Your task to perform on an android device: visit the assistant section in the google photos Image 0: 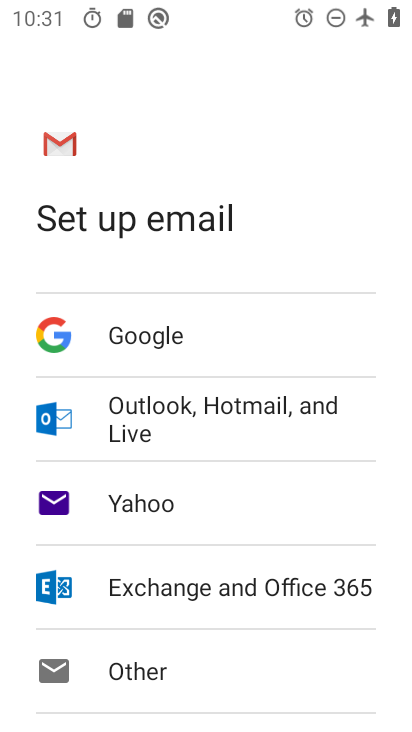
Step 0: press home button
Your task to perform on an android device: visit the assistant section in the google photos Image 1: 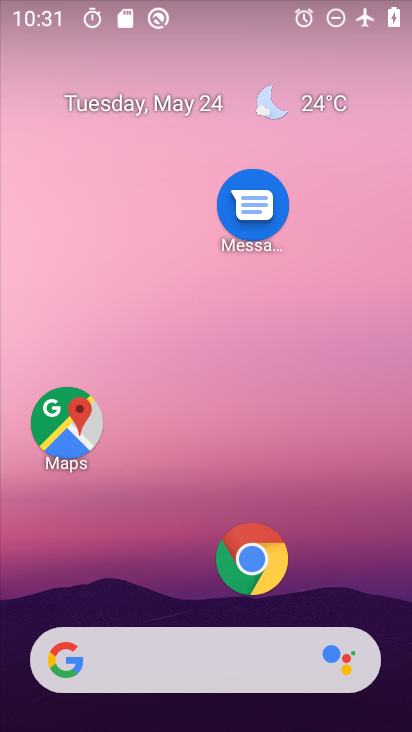
Step 1: drag from (190, 617) to (170, 204)
Your task to perform on an android device: visit the assistant section in the google photos Image 2: 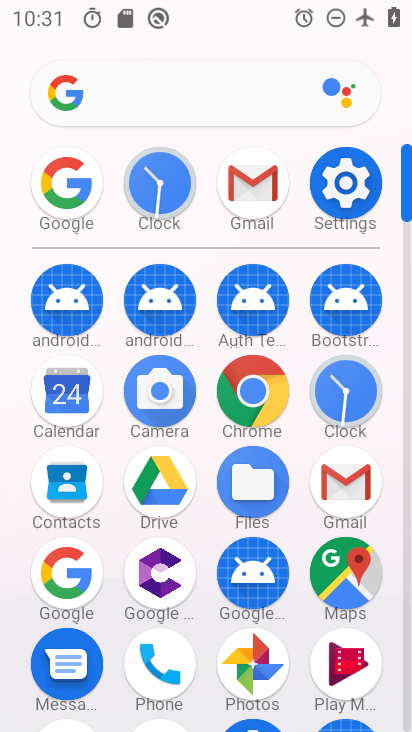
Step 2: click (251, 670)
Your task to perform on an android device: visit the assistant section in the google photos Image 3: 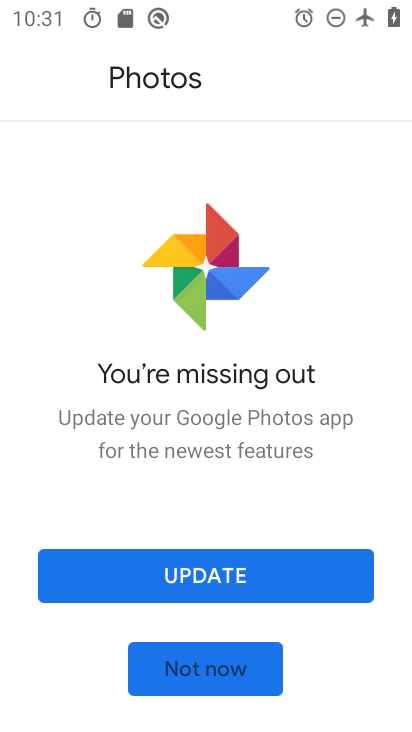
Step 3: click (246, 647)
Your task to perform on an android device: visit the assistant section in the google photos Image 4: 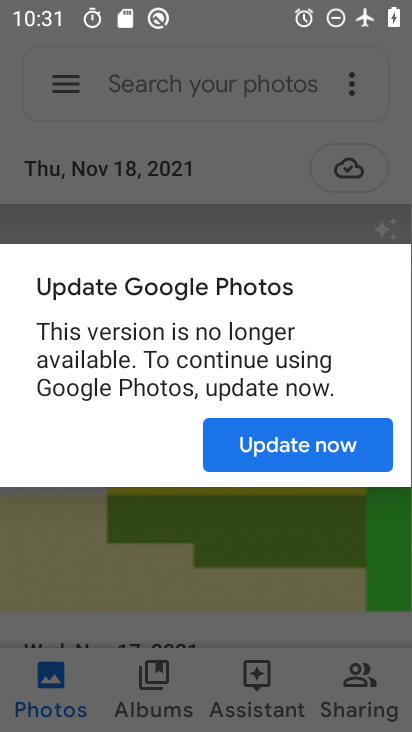
Step 4: click (258, 658)
Your task to perform on an android device: visit the assistant section in the google photos Image 5: 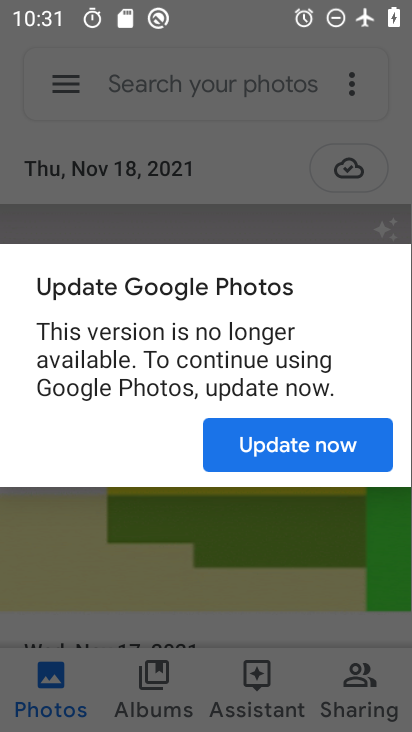
Step 5: click (254, 683)
Your task to perform on an android device: visit the assistant section in the google photos Image 6: 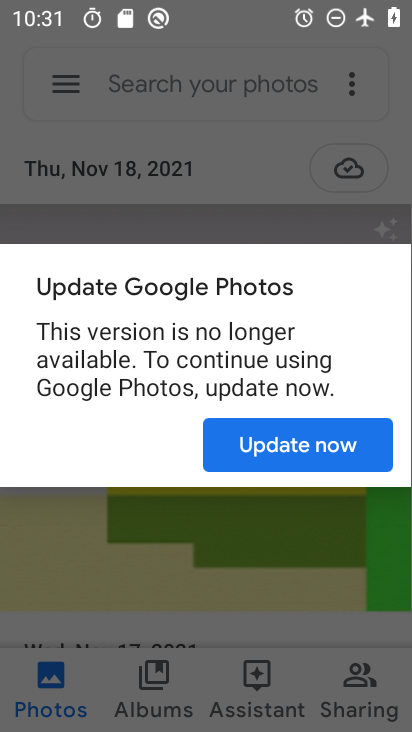
Step 6: click (258, 459)
Your task to perform on an android device: visit the assistant section in the google photos Image 7: 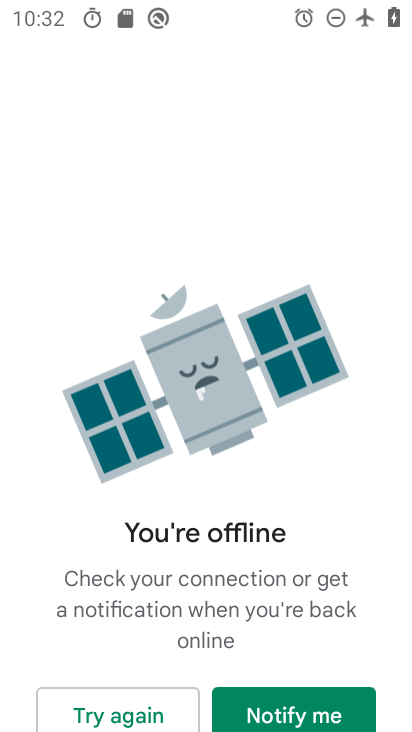
Step 7: press back button
Your task to perform on an android device: visit the assistant section in the google photos Image 8: 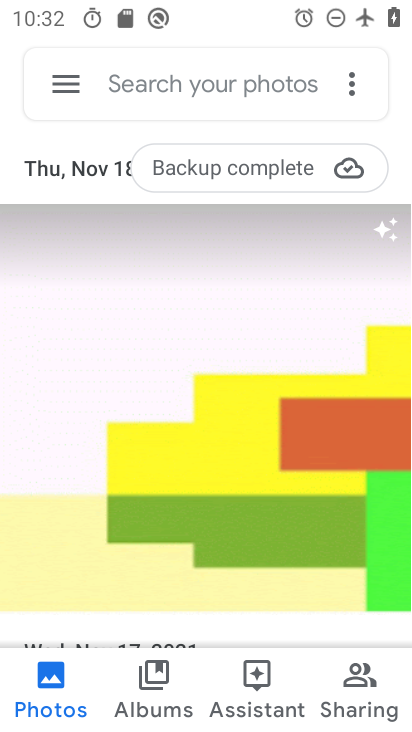
Step 8: click (259, 670)
Your task to perform on an android device: visit the assistant section in the google photos Image 9: 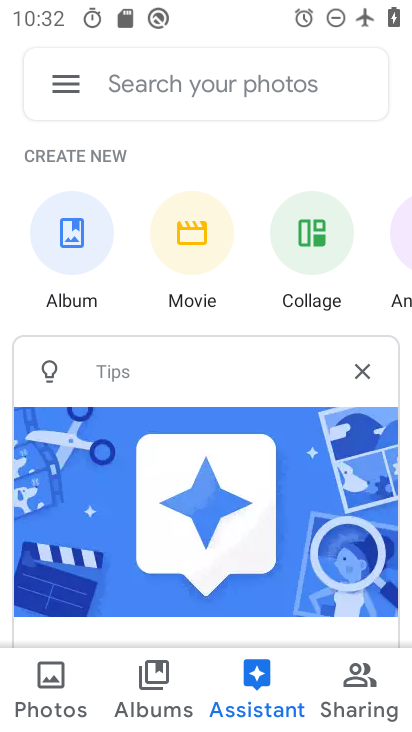
Step 9: task complete